Your task to perform on an android device: Do I have any events today? Image 0: 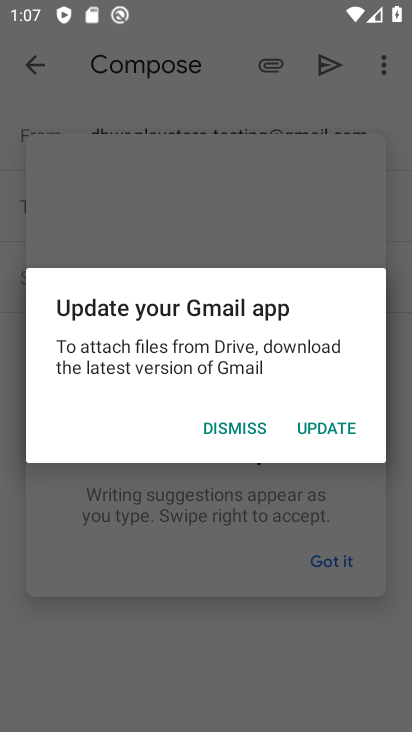
Step 0: press home button
Your task to perform on an android device: Do I have any events today? Image 1: 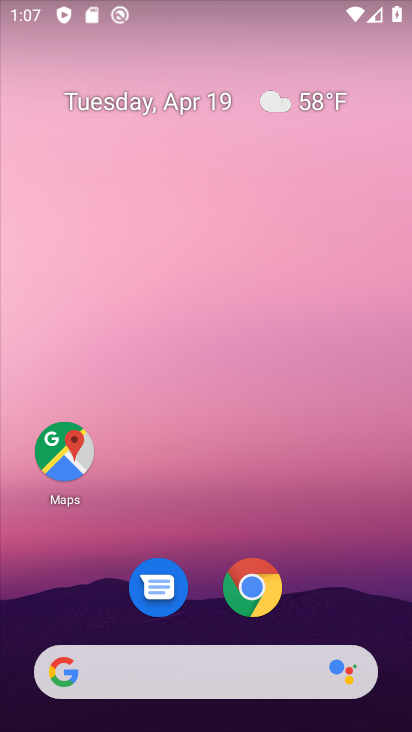
Step 1: drag from (329, 606) to (322, 166)
Your task to perform on an android device: Do I have any events today? Image 2: 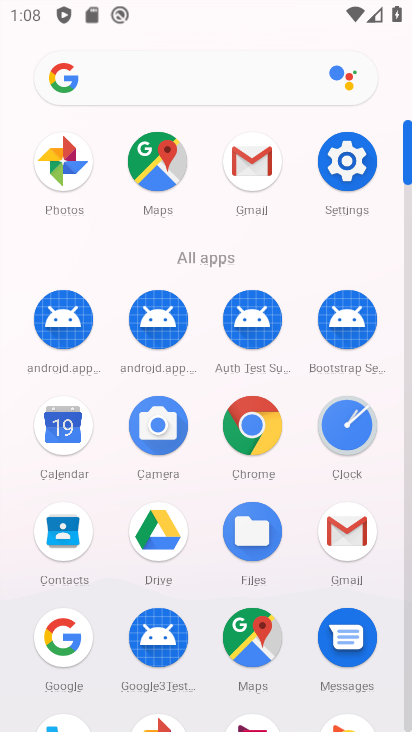
Step 2: click (63, 444)
Your task to perform on an android device: Do I have any events today? Image 3: 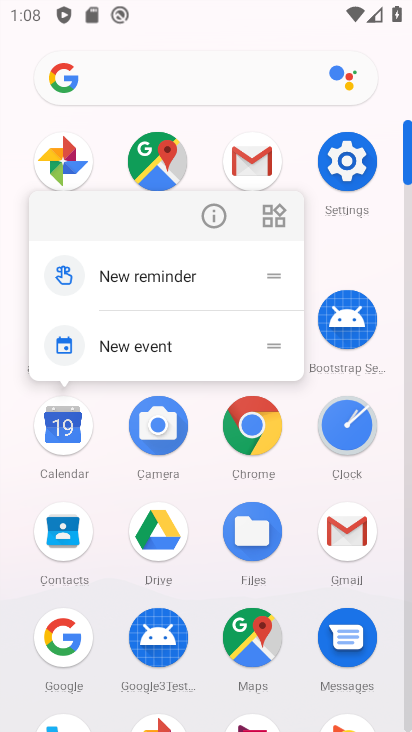
Step 3: click (63, 445)
Your task to perform on an android device: Do I have any events today? Image 4: 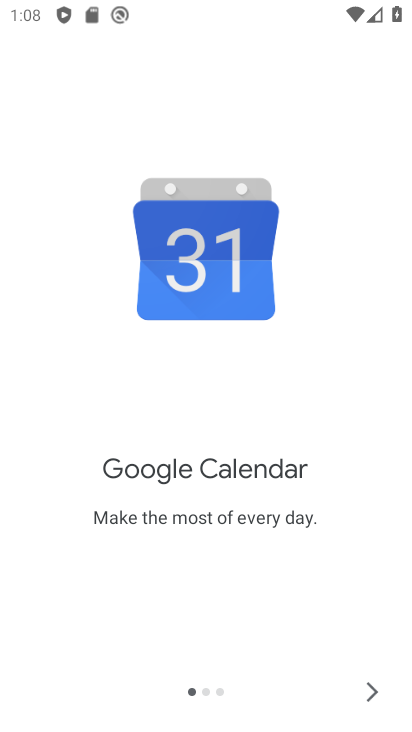
Step 4: click (373, 696)
Your task to perform on an android device: Do I have any events today? Image 5: 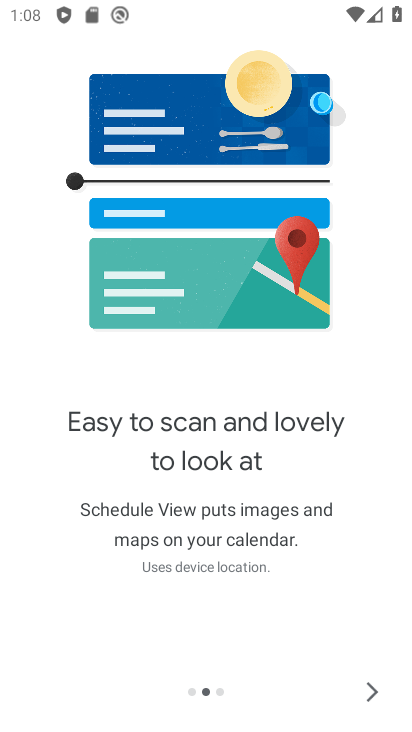
Step 5: click (373, 696)
Your task to perform on an android device: Do I have any events today? Image 6: 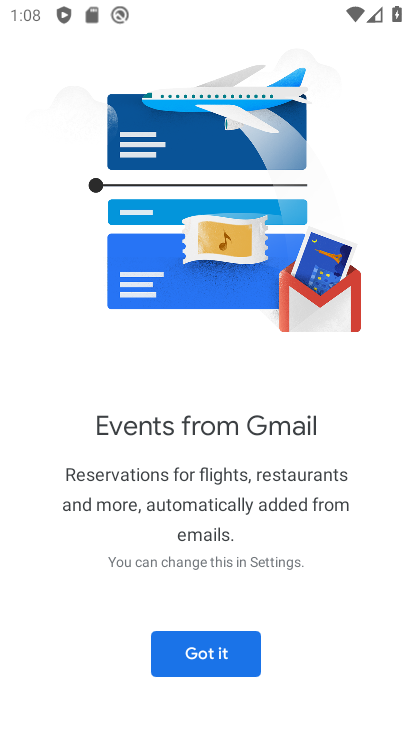
Step 6: click (373, 696)
Your task to perform on an android device: Do I have any events today? Image 7: 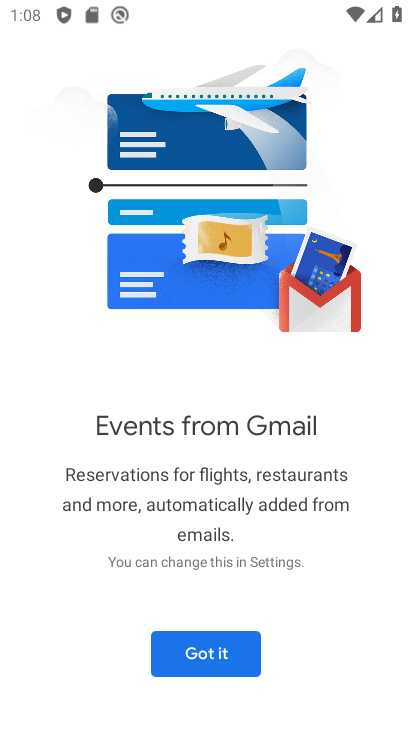
Step 7: click (238, 652)
Your task to perform on an android device: Do I have any events today? Image 8: 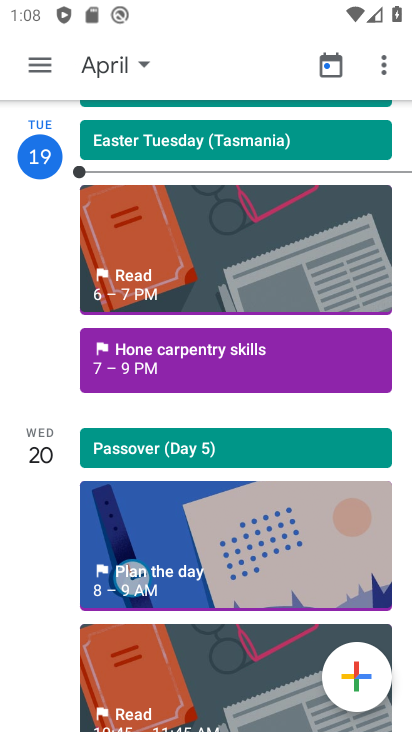
Step 8: task complete